Your task to perform on an android device: Do I have any events today? Image 0: 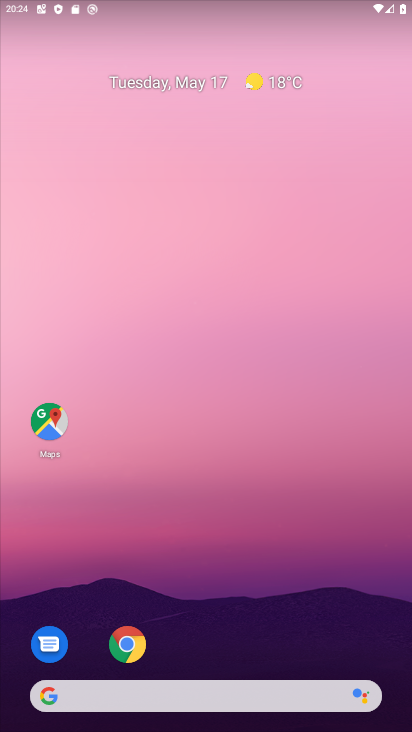
Step 0: drag from (236, 513) to (266, 27)
Your task to perform on an android device: Do I have any events today? Image 1: 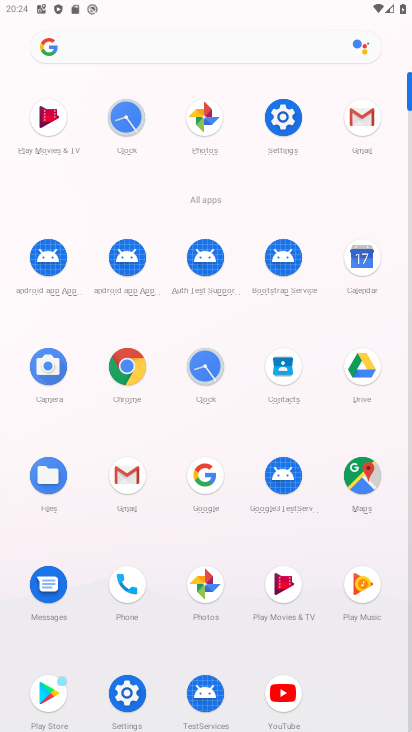
Step 1: click (368, 255)
Your task to perform on an android device: Do I have any events today? Image 2: 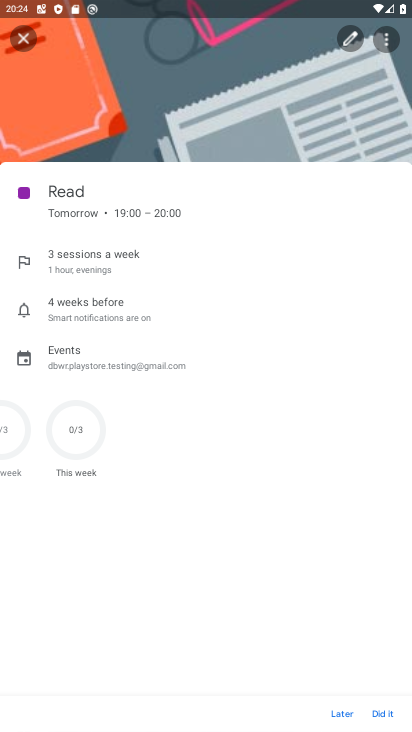
Step 2: click (29, 27)
Your task to perform on an android device: Do I have any events today? Image 3: 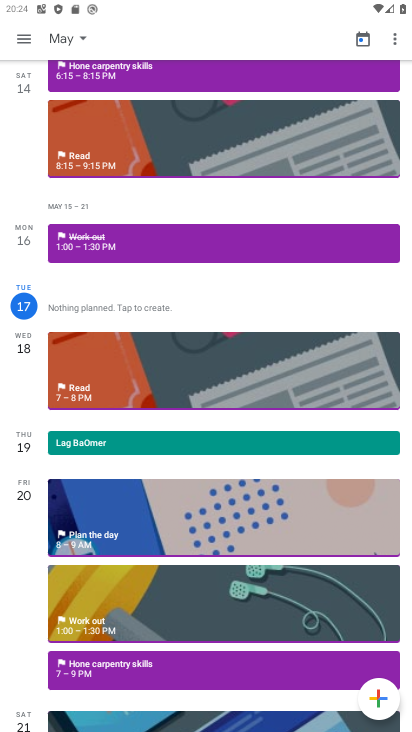
Step 3: click (113, 380)
Your task to perform on an android device: Do I have any events today? Image 4: 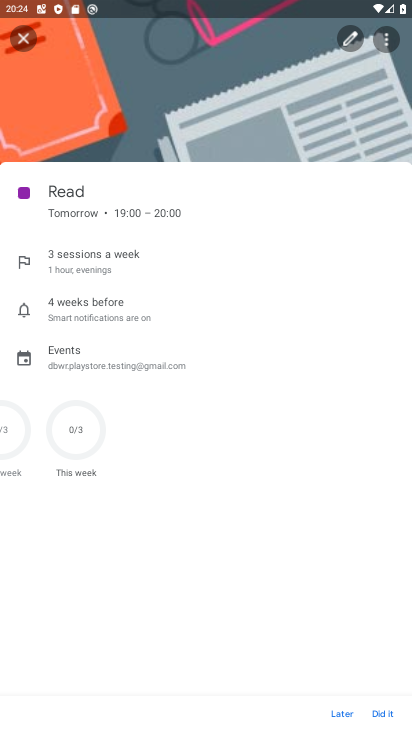
Step 4: task complete